Your task to perform on an android device: Clear the shopping cart on newegg.com. Image 0: 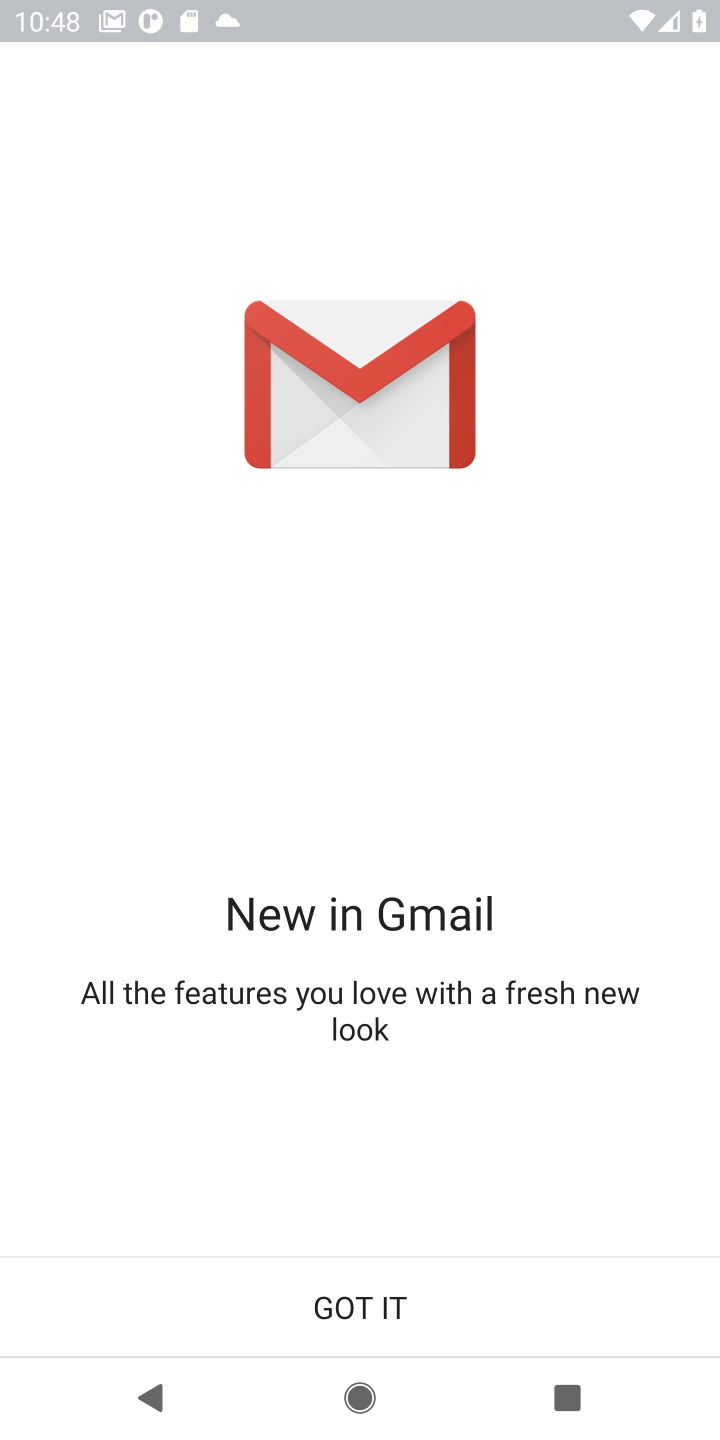
Step 0: press home button
Your task to perform on an android device: Clear the shopping cart on newegg.com. Image 1: 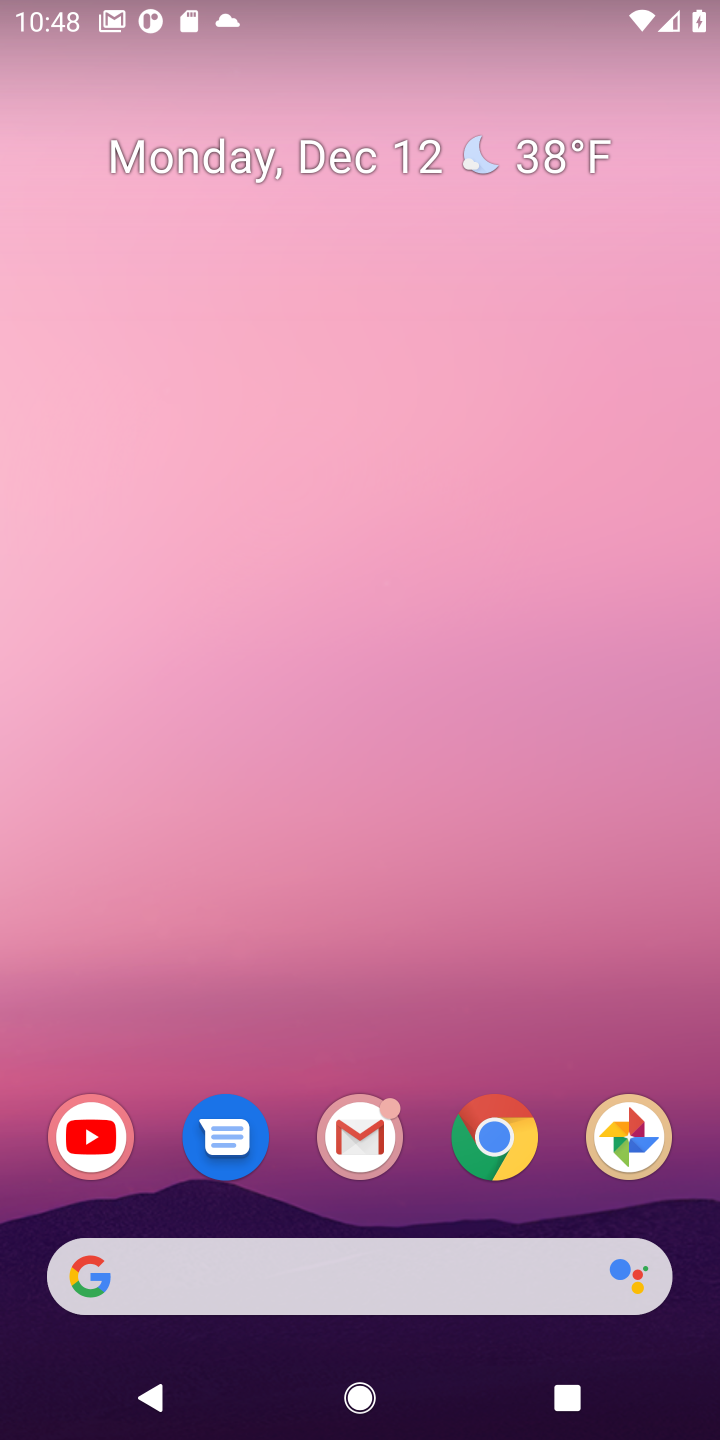
Step 1: click (468, 1271)
Your task to perform on an android device: Clear the shopping cart on newegg.com. Image 2: 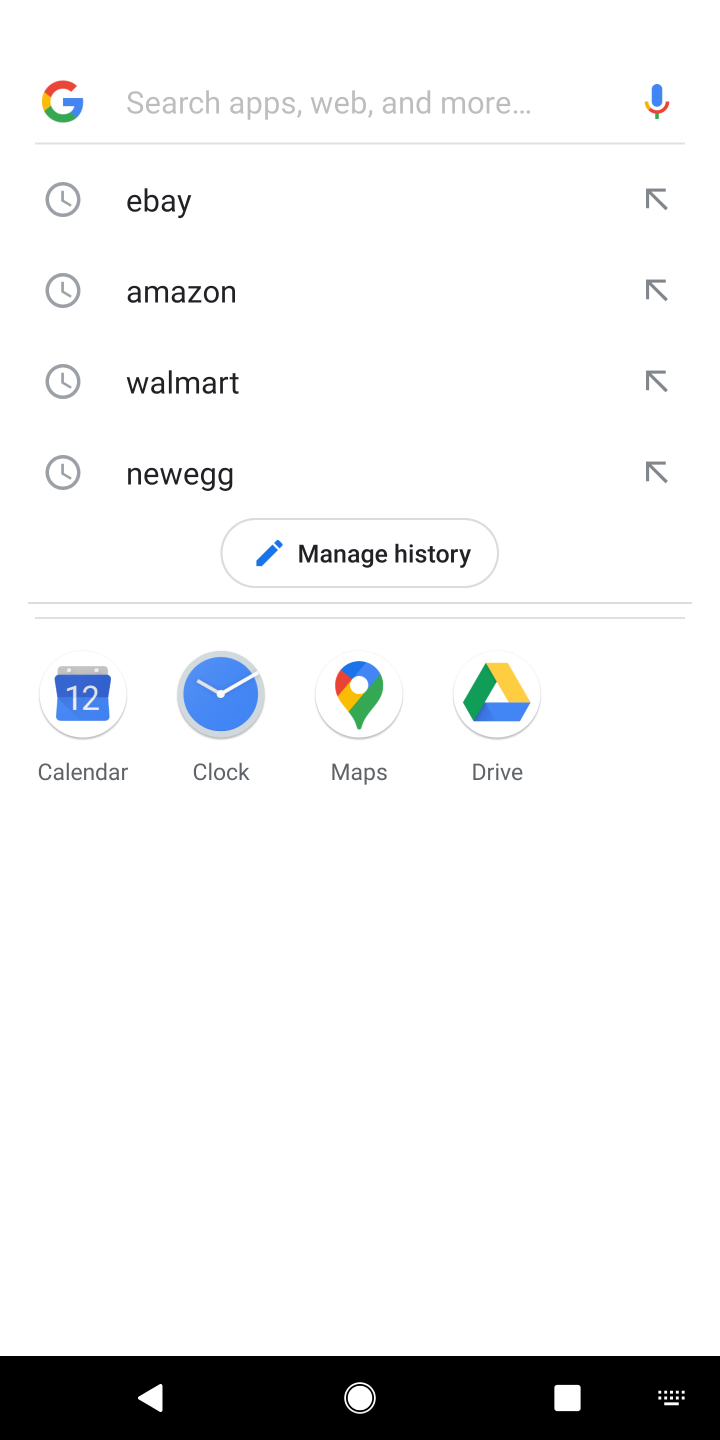
Step 2: click (137, 453)
Your task to perform on an android device: Clear the shopping cart on newegg.com. Image 3: 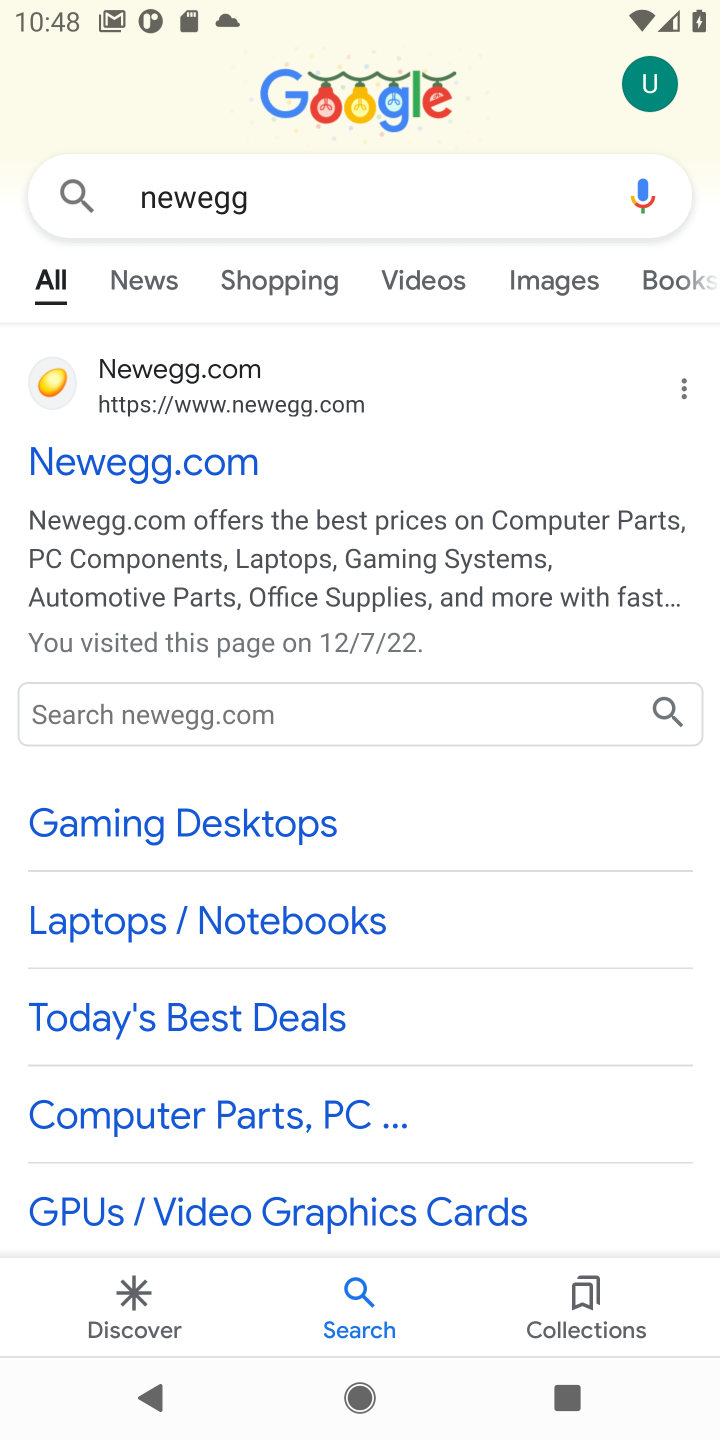
Step 3: click (220, 471)
Your task to perform on an android device: Clear the shopping cart on newegg.com. Image 4: 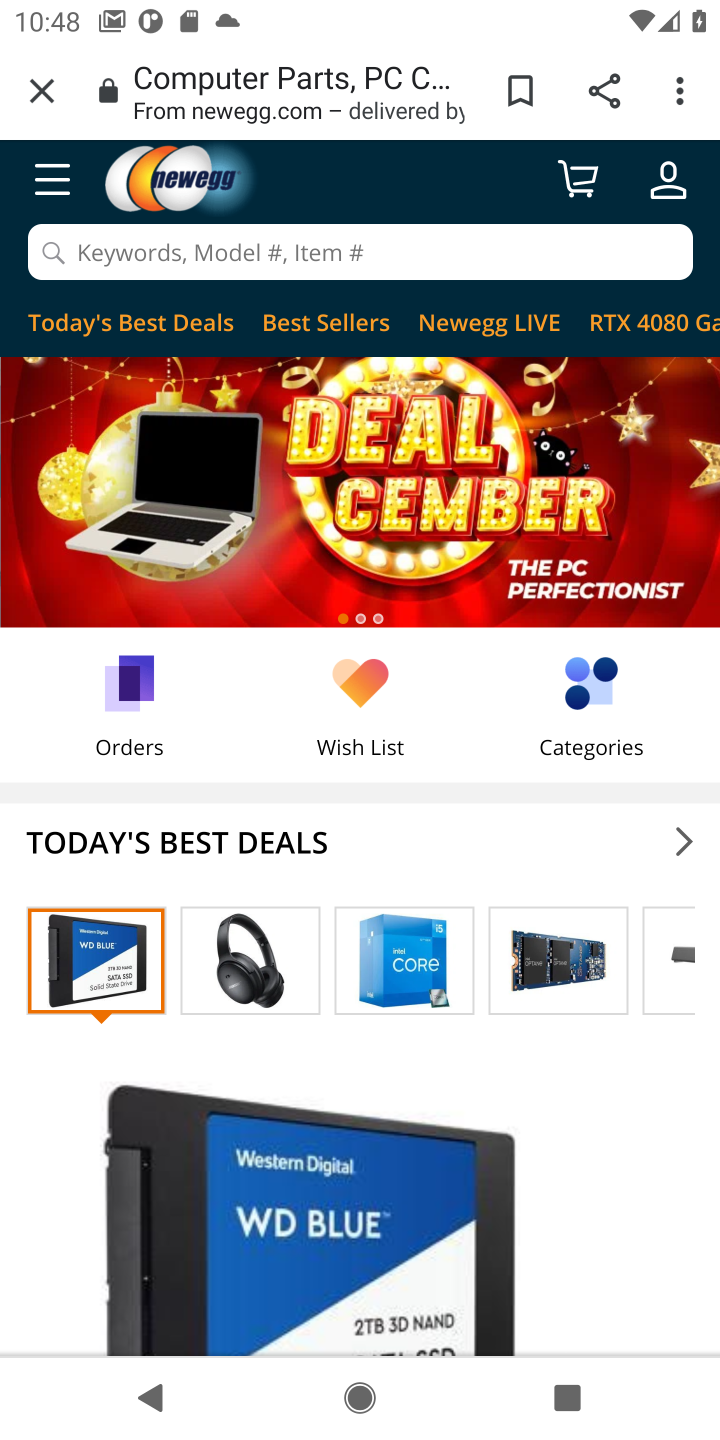
Step 4: click (276, 230)
Your task to perform on an android device: Clear the shopping cart on newegg.com. Image 5: 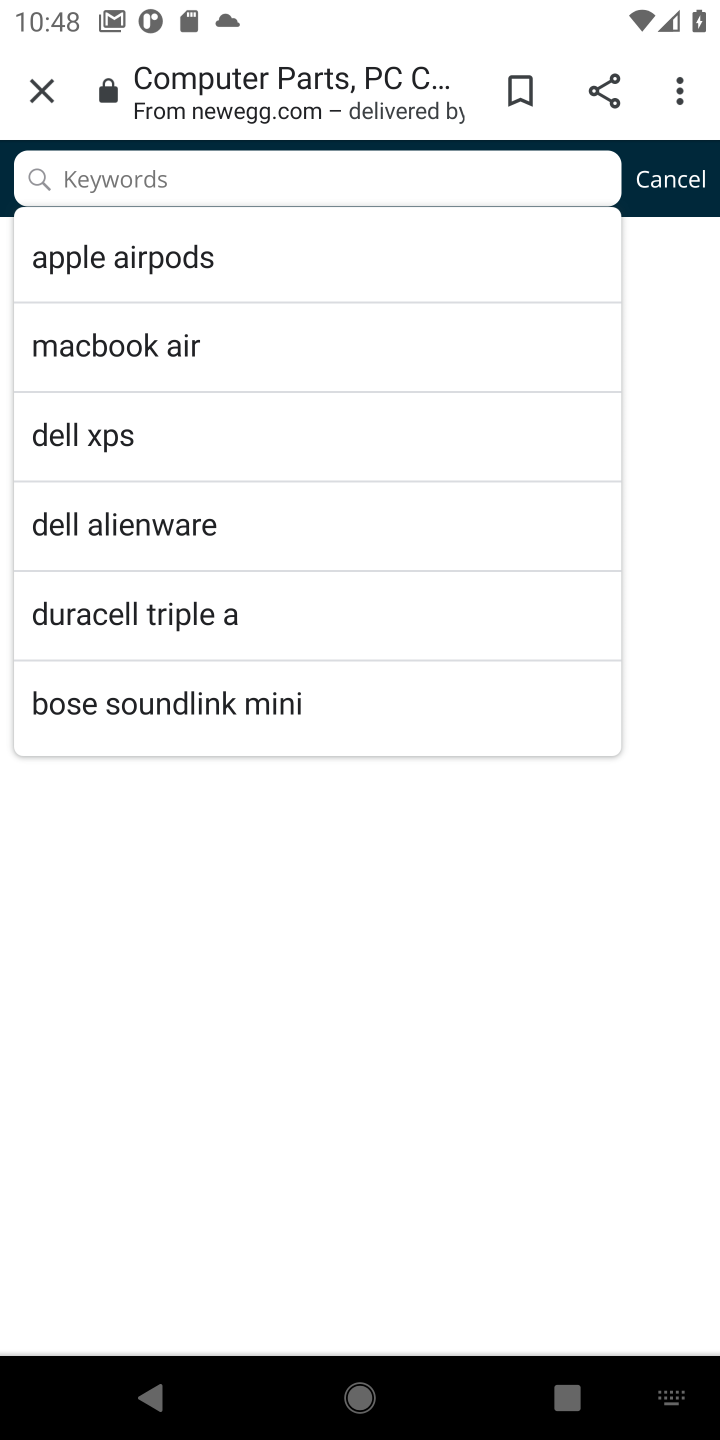
Step 5: click (666, 181)
Your task to perform on an android device: Clear the shopping cart on newegg.com. Image 6: 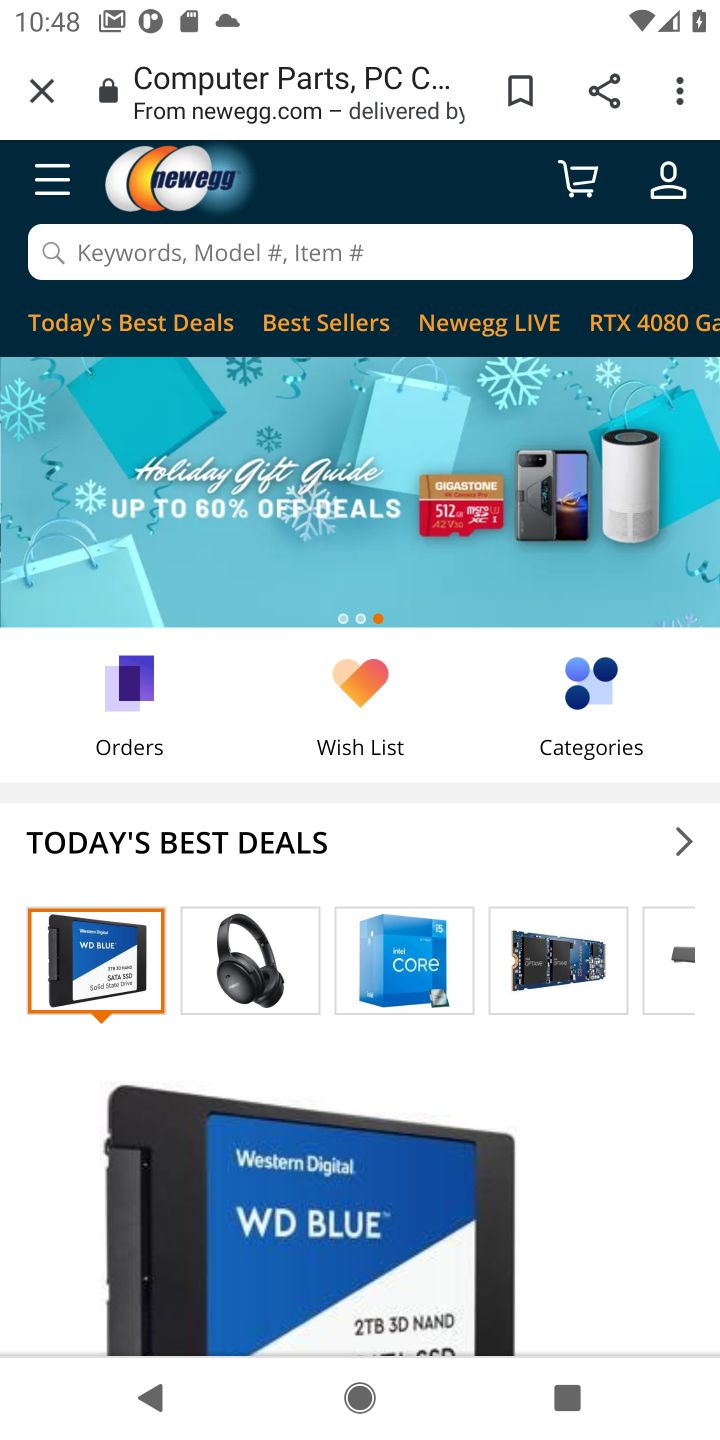
Step 6: click (560, 186)
Your task to perform on an android device: Clear the shopping cart on newegg.com. Image 7: 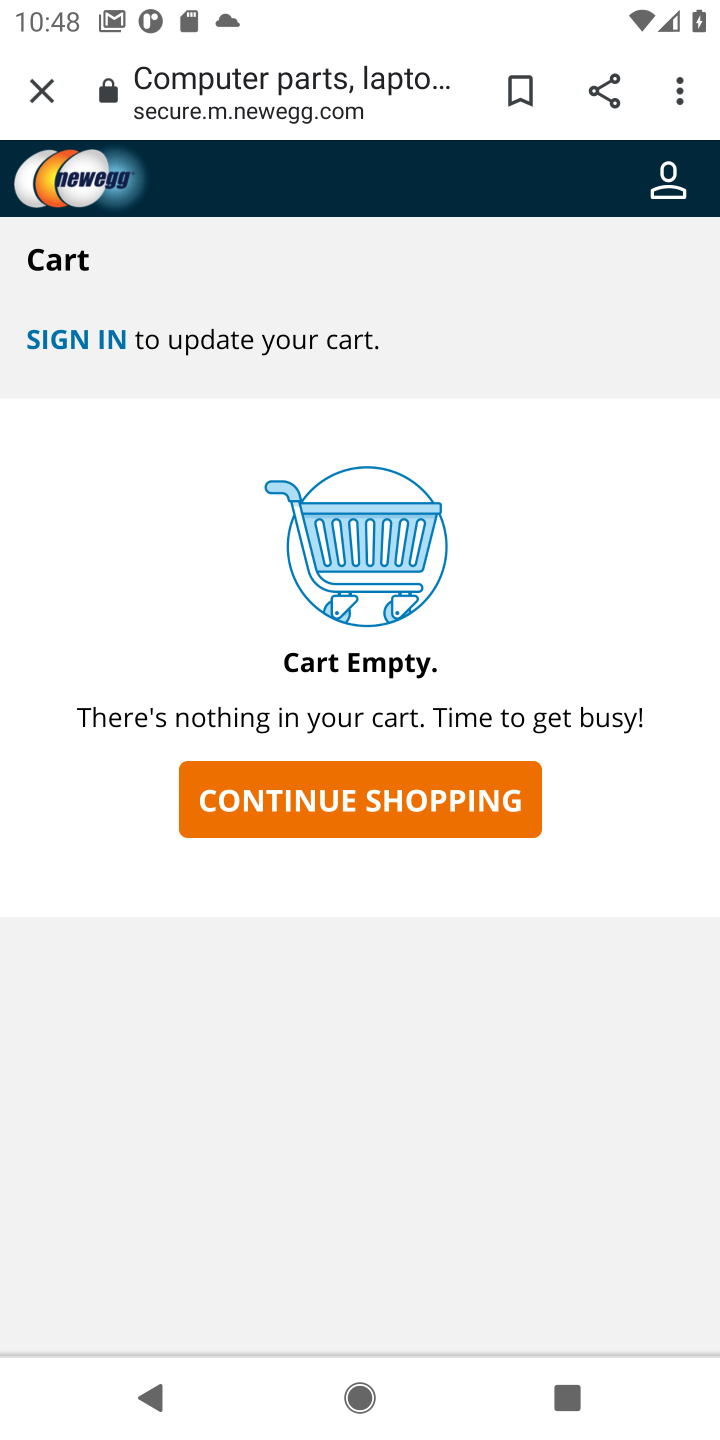
Step 7: task complete